Your task to perform on an android device: Search for vegetarian restaurants on Maps Image 0: 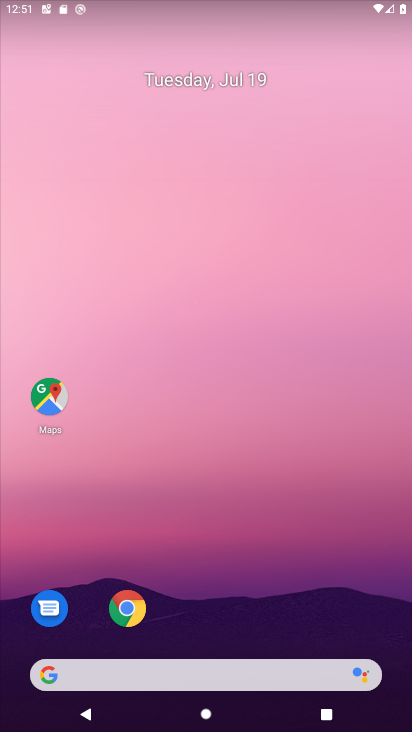
Step 0: drag from (214, 610) to (280, 25)
Your task to perform on an android device: Search for vegetarian restaurants on Maps Image 1: 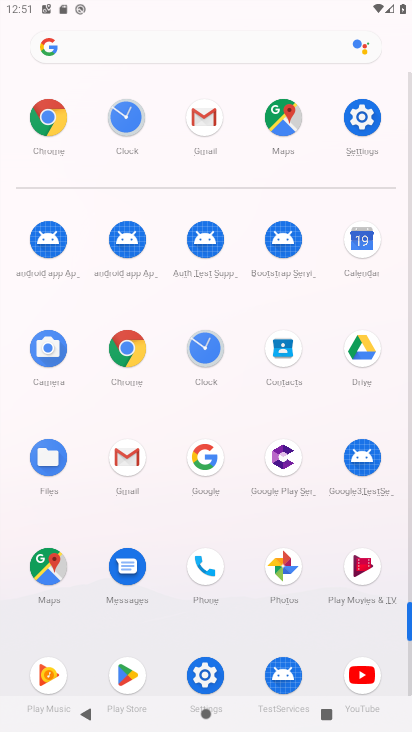
Step 1: click (46, 578)
Your task to perform on an android device: Search for vegetarian restaurants on Maps Image 2: 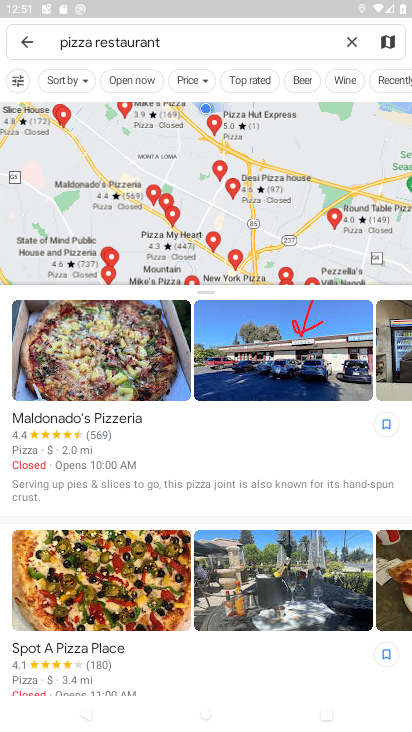
Step 2: click (350, 37)
Your task to perform on an android device: Search for vegetarian restaurants on Maps Image 3: 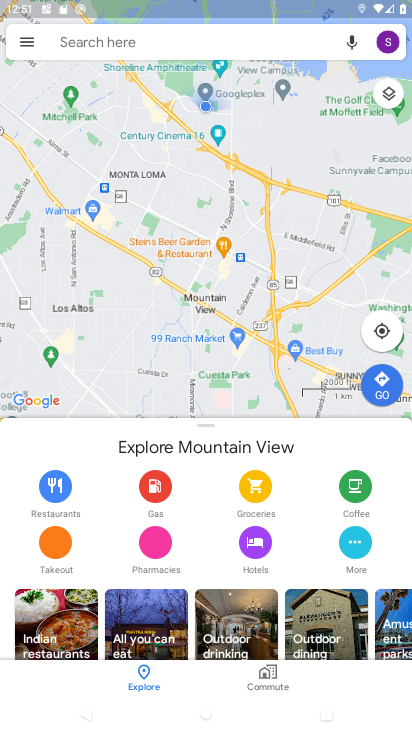
Step 3: click (205, 45)
Your task to perform on an android device: Search for vegetarian restaurants on Maps Image 4: 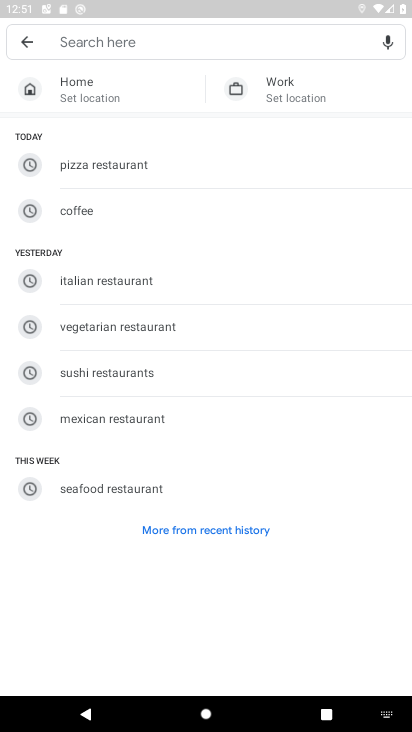
Step 4: click (162, 327)
Your task to perform on an android device: Search for vegetarian restaurants on Maps Image 5: 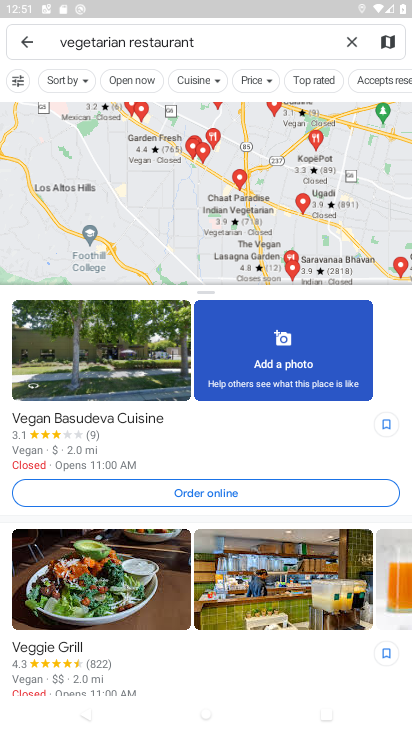
Step 5: task complete